Your task to perform on an android device: all mails in gmail Image 0: 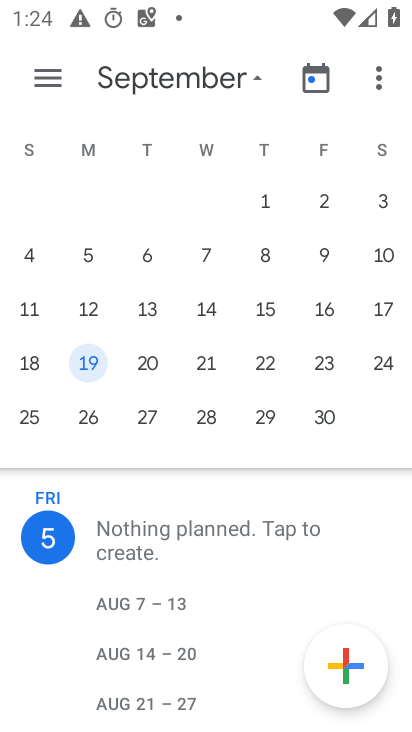
Step 0: press home button
Your task to perform on an android device: all mails in gmail Image 1: 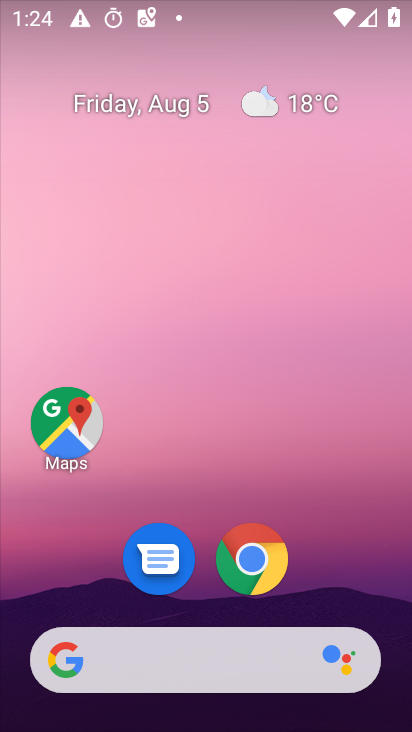
Step 1: task complete